Your task to perform on an android device: allow cookies in the chrome app Image 0: 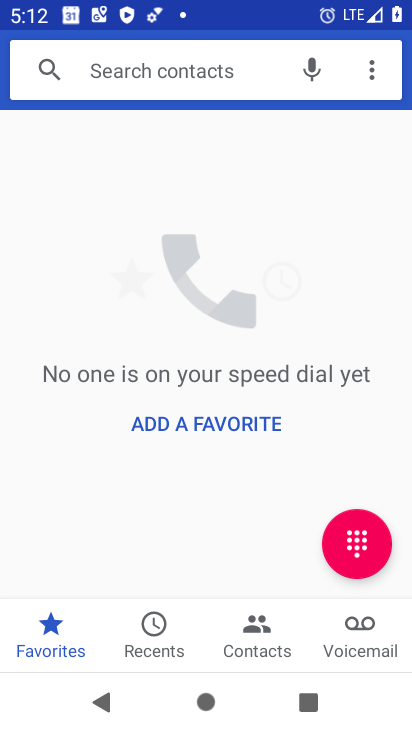
Step 0: press home button
Your task to perform on an android device: allow cookies in the chrome app Image 1: 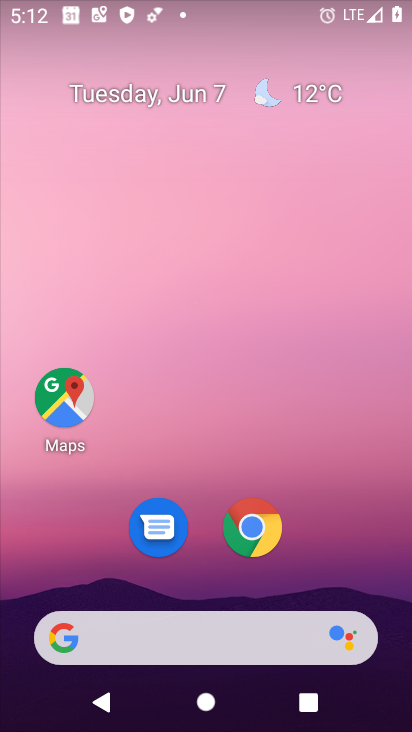
Step 1: click (253, 525)
Your task to perform on an android device: allow cookies in the chrome app Image 2: 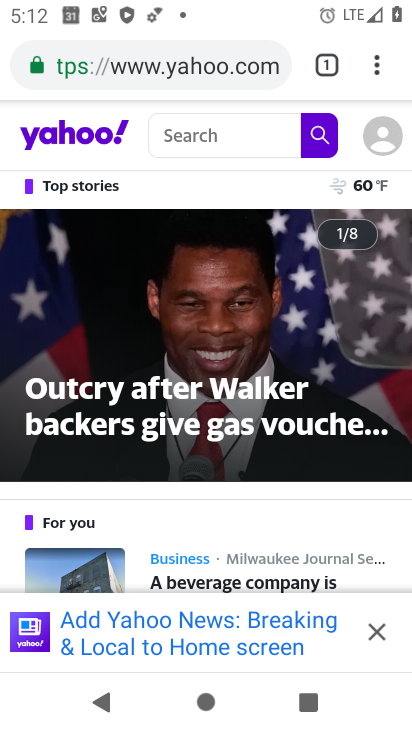
Step 2: click (378, 63)
Your task to perform on an android device: allow cookies in the chrome app Image 3: 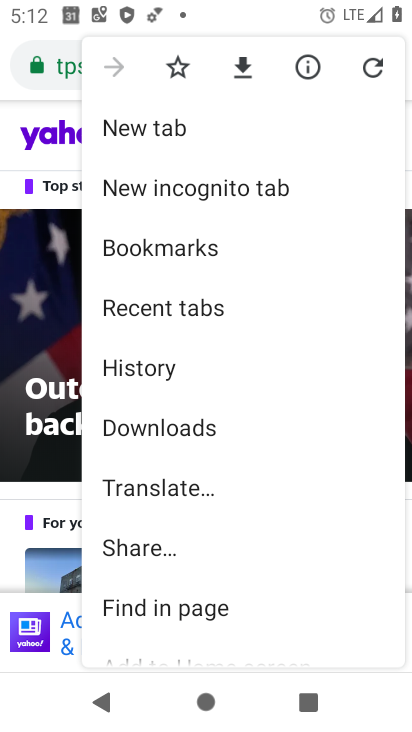
Step 3: drag from (179, 515) to (229, 411)
Your task to perform on an android device: allow cookies in the chrome app Image 4: 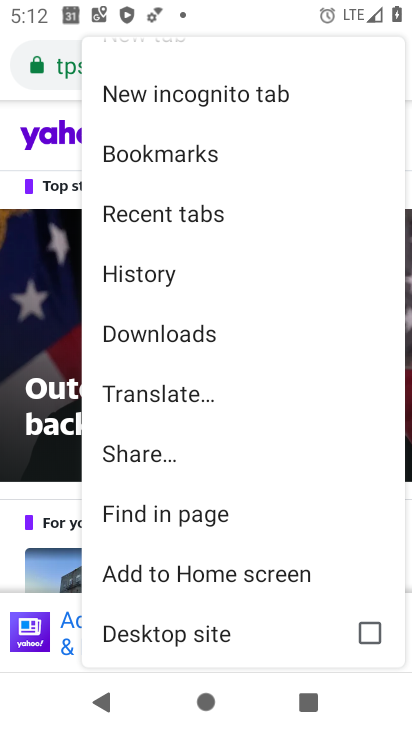
Step 4: drag from (181, 539) to (242, 458)
Your task to perform on an android device: allow cookies in the chrome app Image 5: 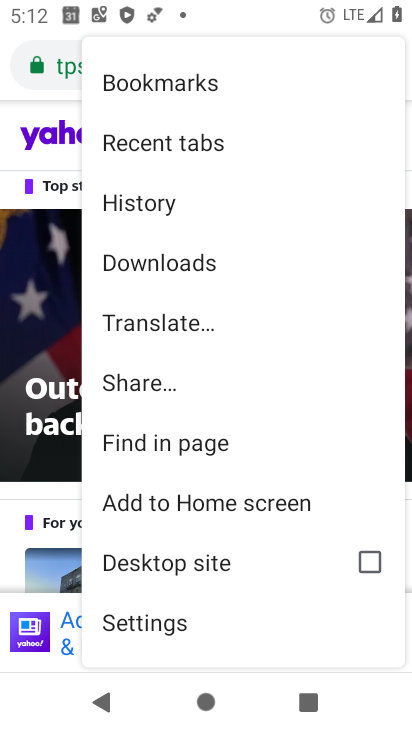
Step 5: drag from (160, 583) to (262, 435)
Your task to perform on an android device: allow cookies in the chrome app Image 6: 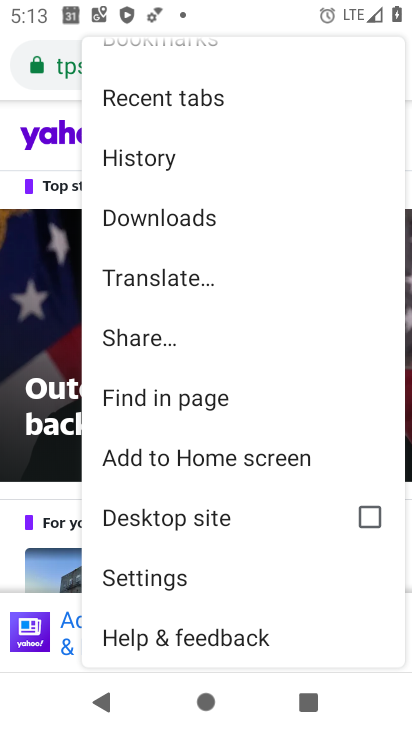
Step 6: click (170, 581)
Your task to perform on an android device: allow cookies in the chrome app Image 7: 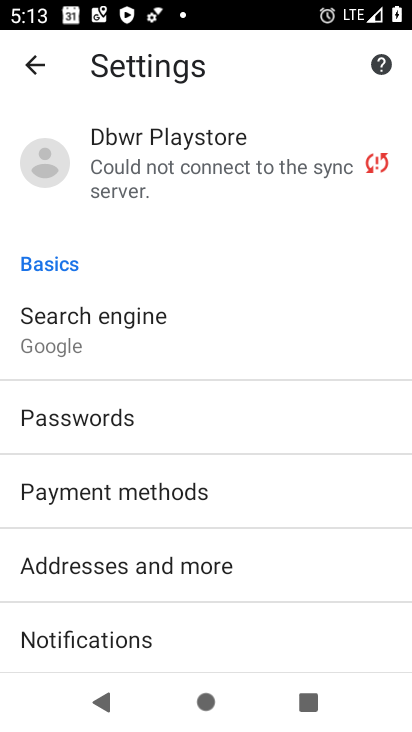
Step 7: drag from (148, 604) to (192, 447)
Your task to perform on an android device: allow cookies in the chrome app Image 8: 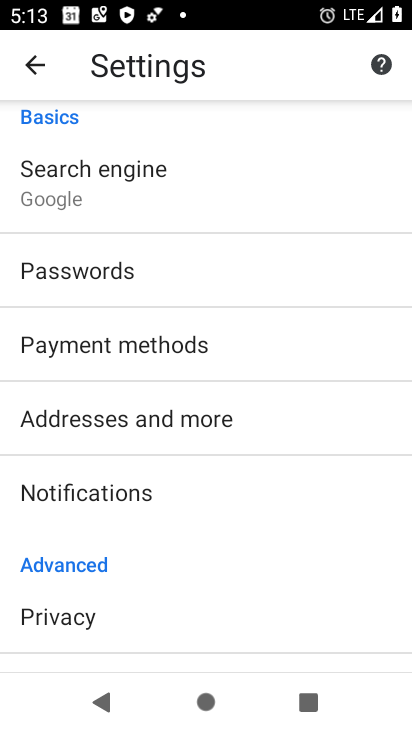
Step 8: drag from (145, 575) to (272, 349)
Your task to perform on an android device: allow cookies in the chrome app Image 9: 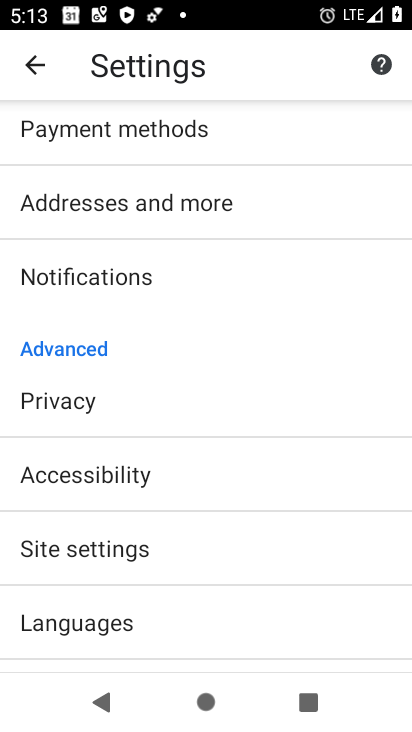
Step 9: click (67, 557)
Your task to perform on an android device: allow cookies in the chrome app Image 10: 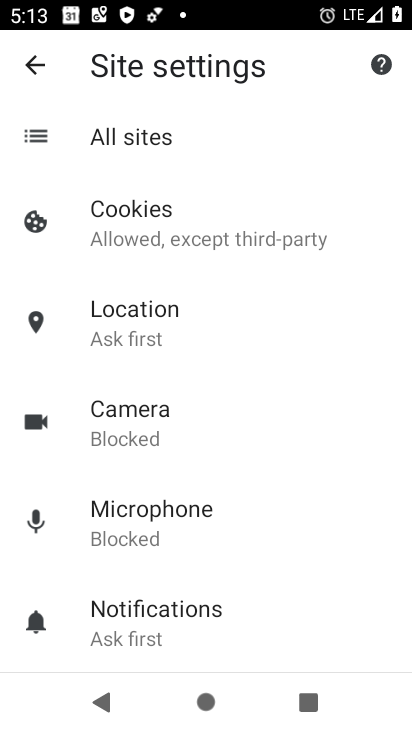
Step 10: click (205, 237)
Your task to perform on an android device: allow cookies in the chrome app Image 11: 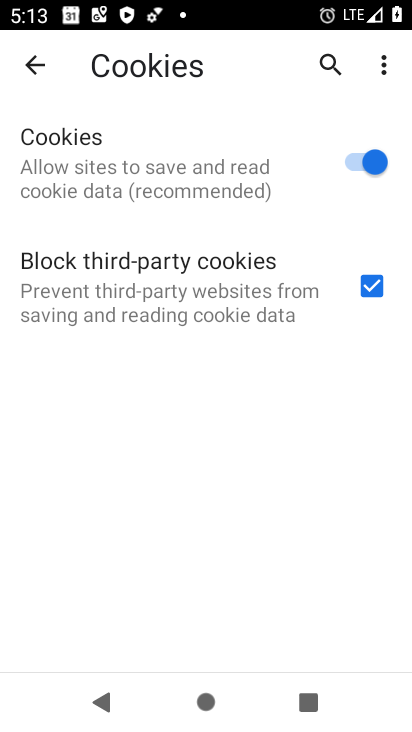
Step 11: task complete